Your task to perform on an android device: add a contact in the contacts app Image 0: 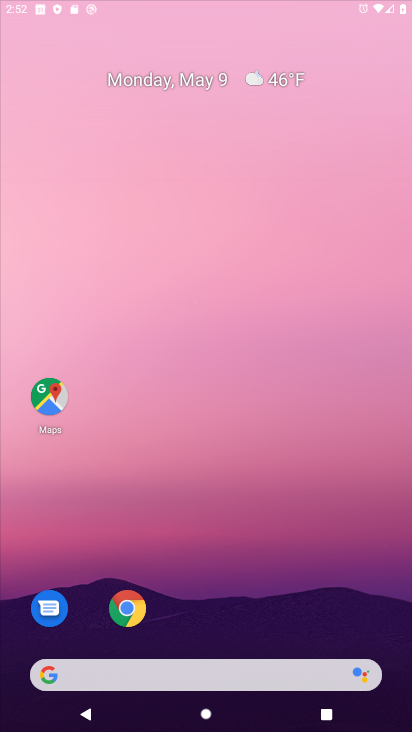
Step 0: drag from (315, 585) to (348, 322)
Your task to perform on an android device: add a contact in the contacts app Image 1: 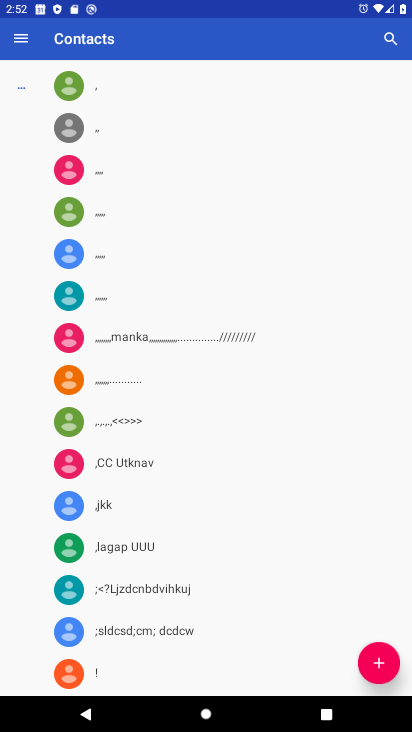
Step 1: press home button
Your task to perform on an android device: add a contact in the contacts app Image 2: 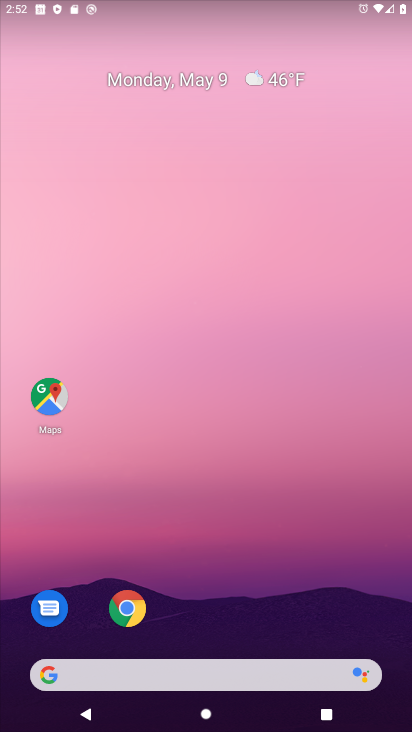
Step 2: drag from (142, 591) to (258, 232)
Your task to perform on an android device: add a contact in the contacts app Image 3: 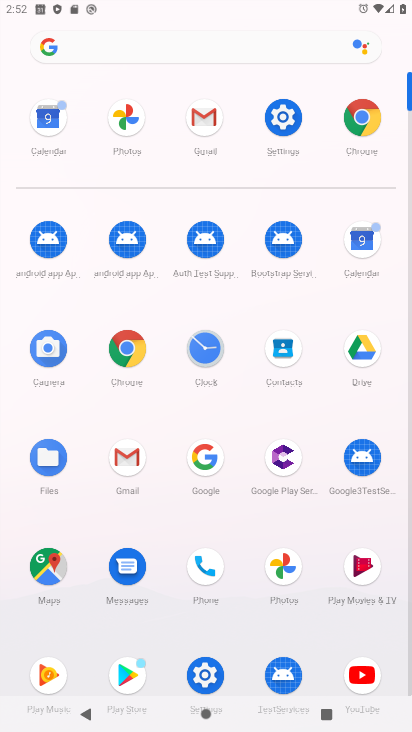
Step 3: click (280, 351)
Your task to perform on an android device: add a contact in the contacts app Image 4: 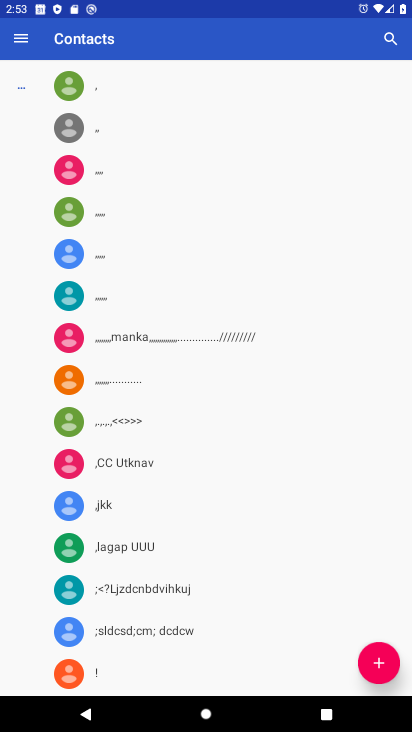
Step 4: click (380, 660)
Your task to perform on an android device: add a contact in the contacts app Image 5: 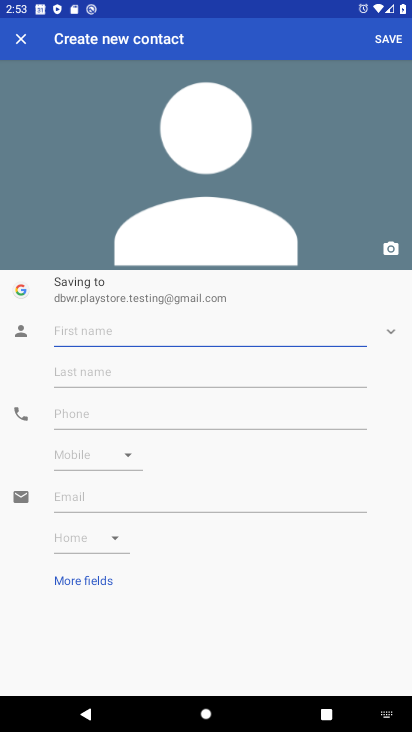
Step 5: type "fhj"
Your task to perform on an android device: add a contact in the contacts app Image 6: 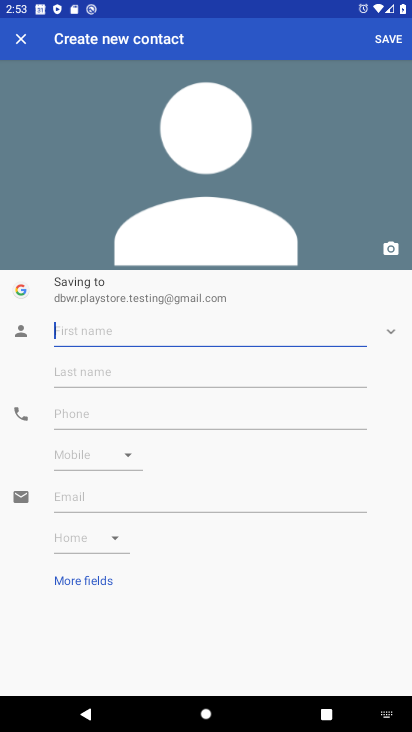
Step 6: click (80, 408)
Your task to perform on an android device: add a contact in the contacts app Image 7: 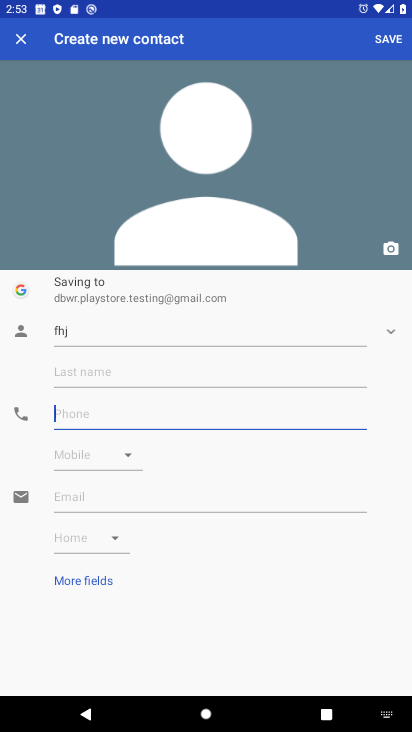
Step 7: type "7656"
Your task to perform on an android device: add a contact in the contacts app Image 8: 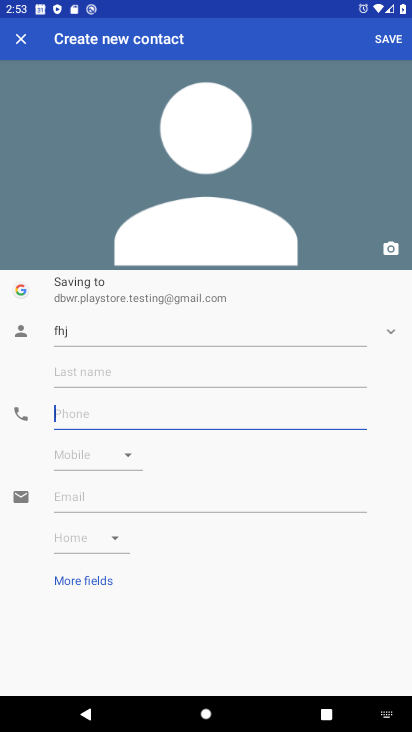
Step 8: click (184, 479)
Your task to perform on an android device: add a contact in the contacts app Image 9: 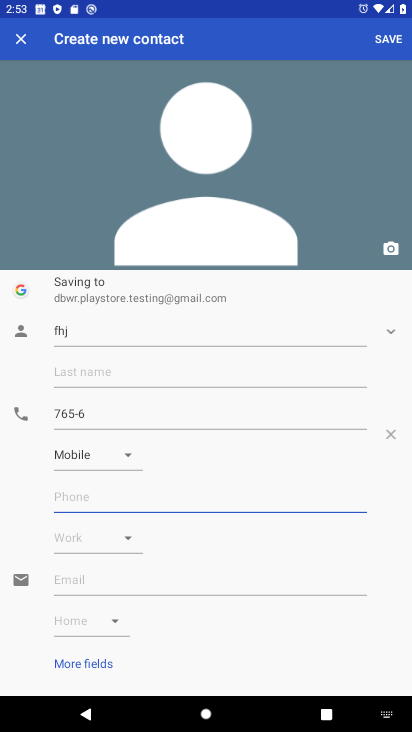
Step 9: click (385, 30)
Your task to perform on an android device: add a contact in the contacts app Image 10: 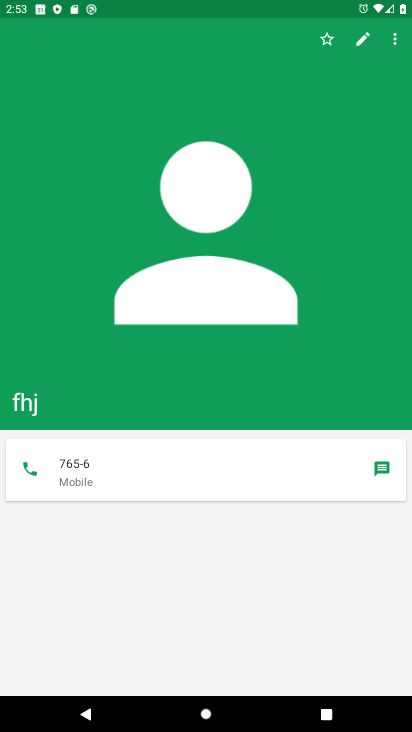
Step 10: task complete